Your task to perform on an android device: Open the calendar app, open the side menu, and click the "Day" option Image 0: 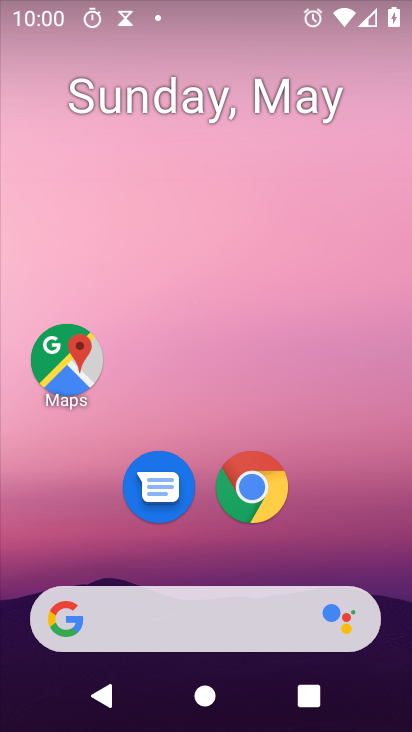
Step 0: drag from (345, 534) to (366, 101)
Your task to perform on an android device: Open the calendar app, open the side menu, and click the "Day" option Image 1: 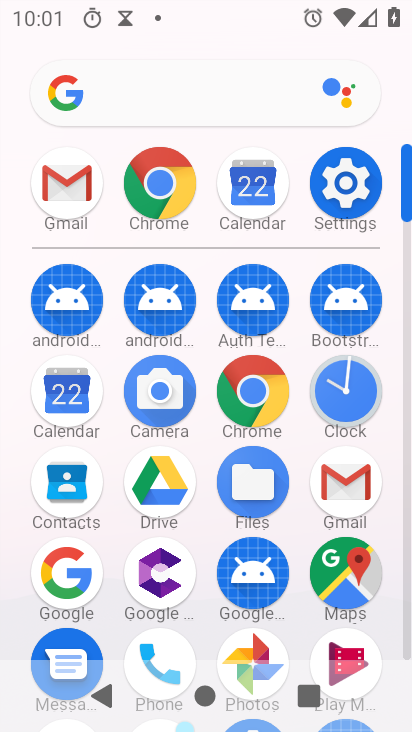
Step 1: click (54, 400)
Your task to perform on an android device: Open the calendar app, open the side menu, and click the "Day" option Image 2: 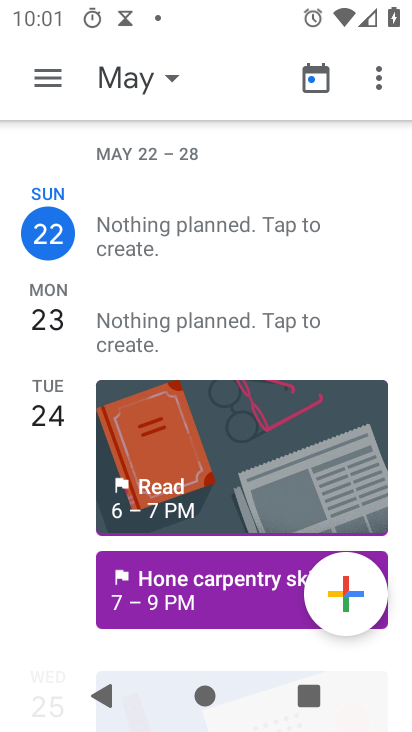
Step 2: click (44, 73)
Your task to perform on an android device: Open the calendar app, open the side menu, and click the "Day" option Image 3: 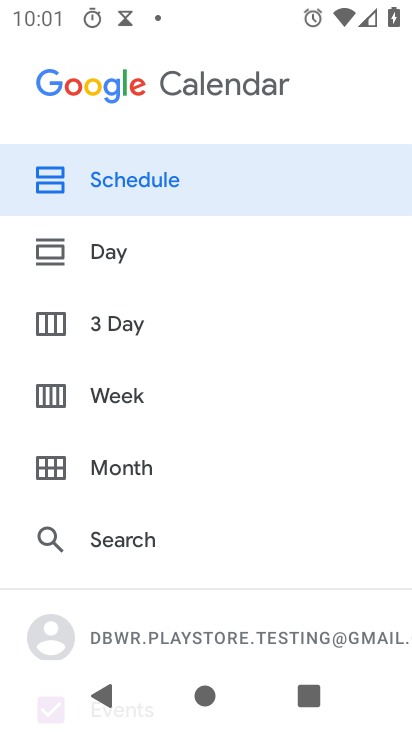
Step 3: click (104, 269)
Your task to perform on an android device: Open the calendar app, open the side menu, and click the "Day" option Image 4: 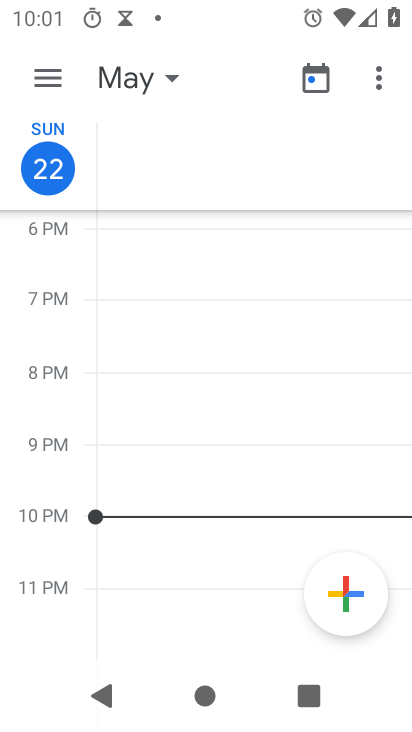
Step 4: task complete